Your task to perform on an android device: Go to settings Image 0: 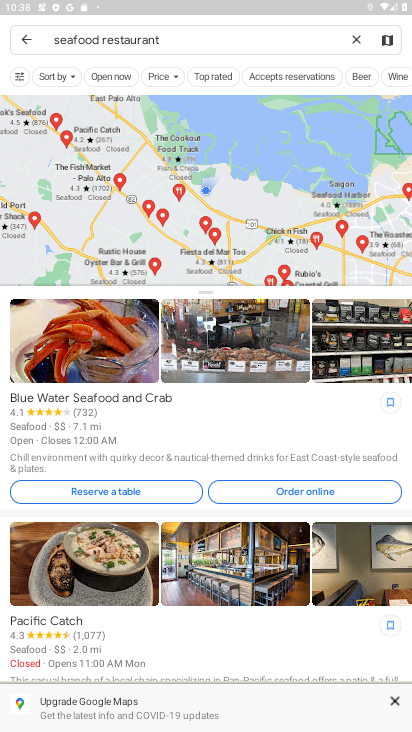
Step 0: press home button
Your task to perform on an android device: Go to settings Image 1: 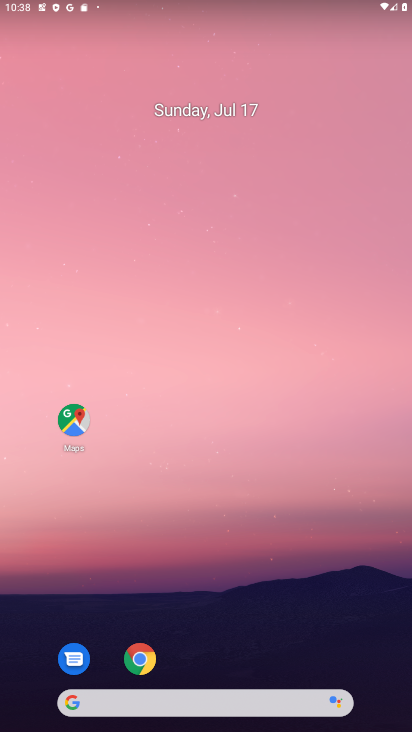
Step 1: drag from (320, 641) to (267, 9)
Your task to perform on an android device: Go to settings Image 2: 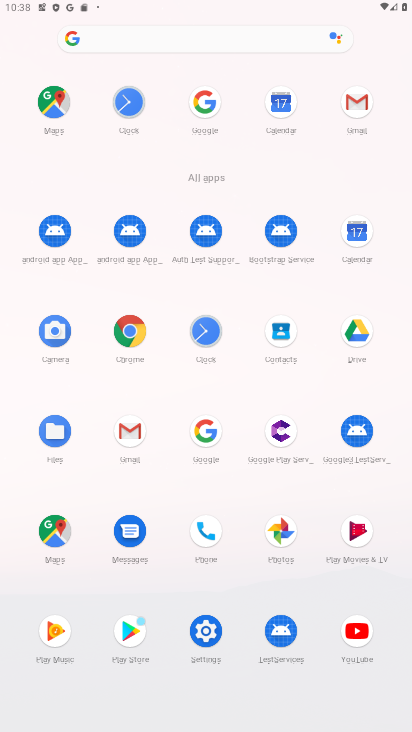
Step 2: click (215, 620)
Your task to perform on an android device: Go to settings Image 3: 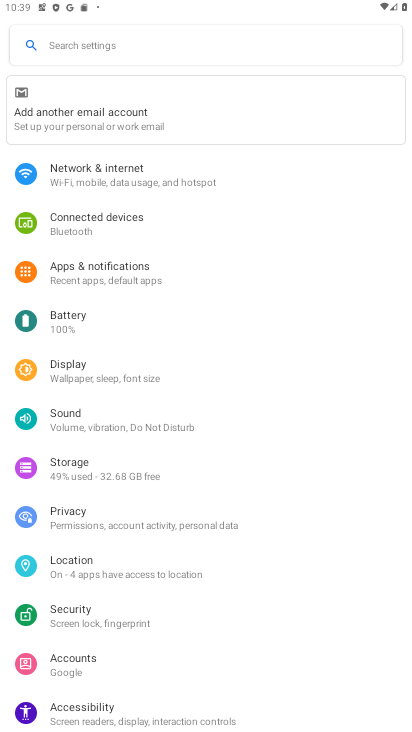
Step 3: task complete